Your task to perform on an android device: What's on my calendar today? Image 0: 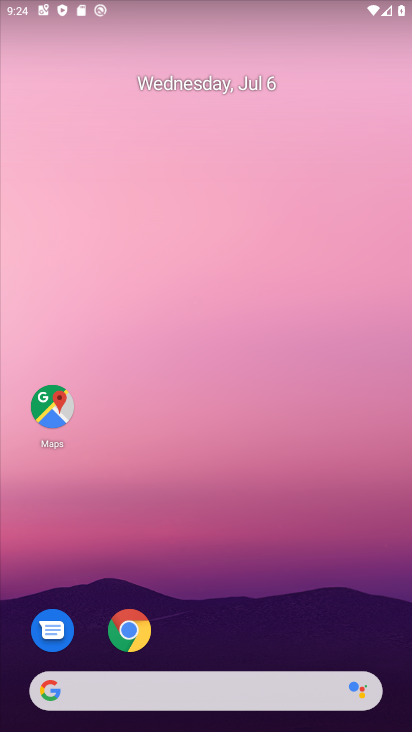
Step 0: drag from (378, 631) to (339, 59)
Your task to perform on an android device: What's on my calendar today? Image 1: 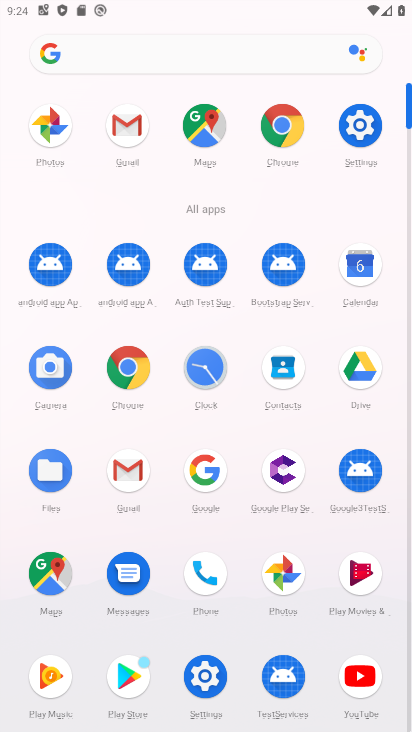
Step 1: click (359, 262)
Your task to perform on an android device: What's on my calendar today? Image 2: 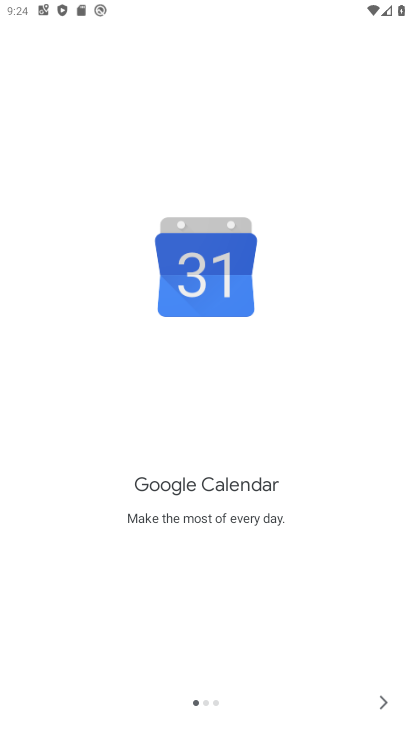
Step 2: click (381, 703)
Your task to perform on an android device: What's on my calendar today? Image 3: 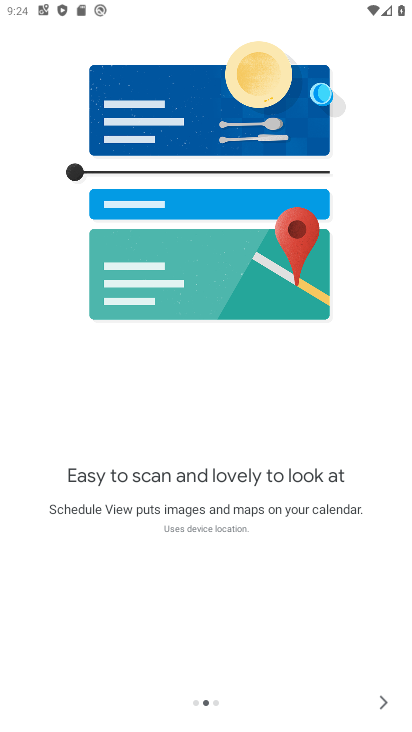
Step 3: click (381, 703)
Your task to perform on an android device: What's on my calendar today? Image 4: 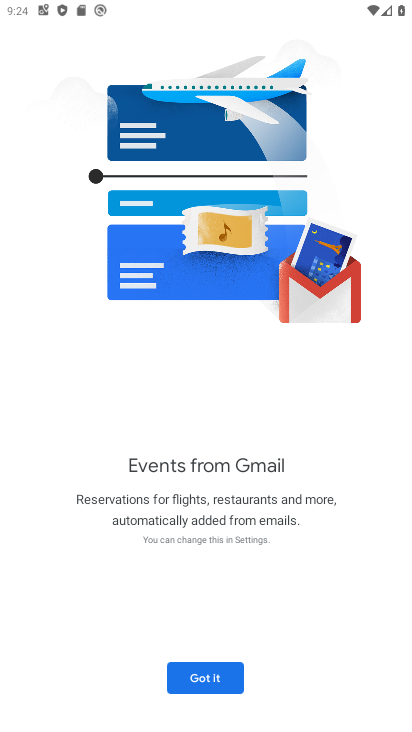
Step 4: click (381, 703)
Your task to perform on an android device: What's on my calendar today? Image 5: 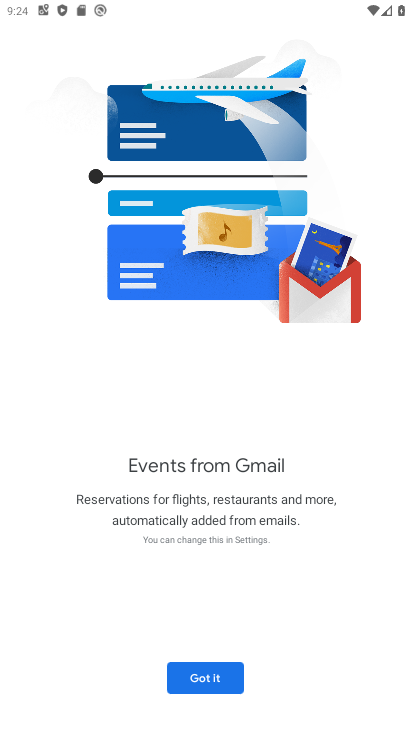
Step 5: click (210, 680)
Your task to perform on an android device: What's on my calendar today? Image 6: 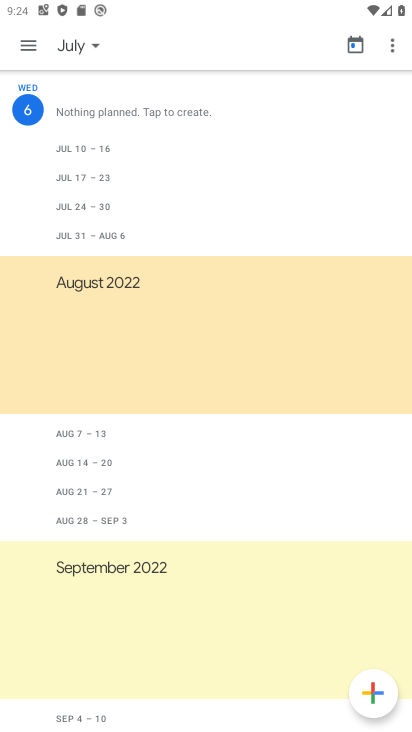
Step 6: click (18, 40)
Your task to perform on an android device: What's on my calendar today? Image 7: 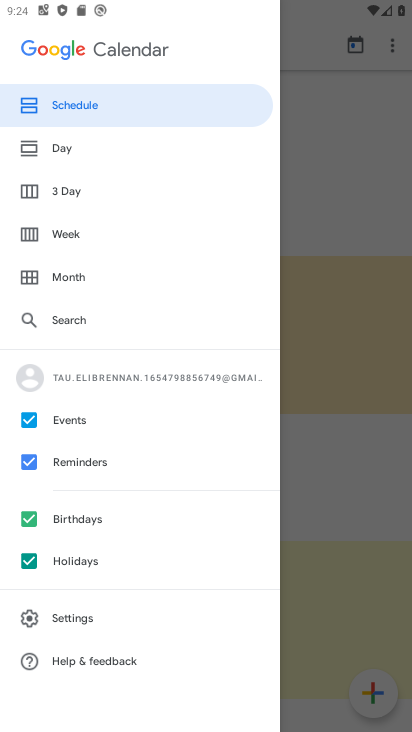
Step 7: click (69, 145)
Your task to perform on an android device: What's on my calendar today? Image 8: 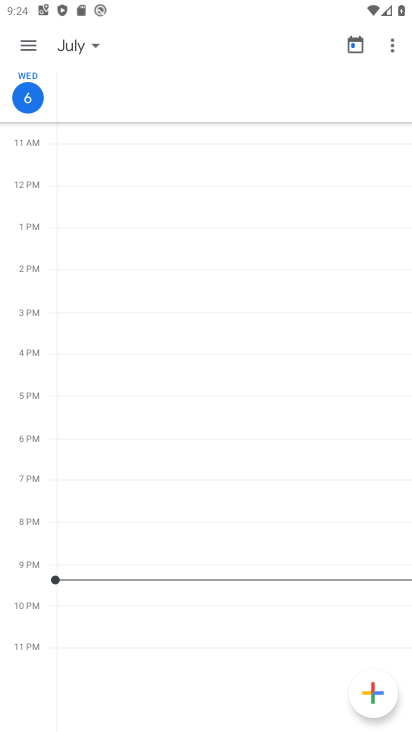
Step 8: task complete